Your task to perform on an android device: check google app version Image 0: 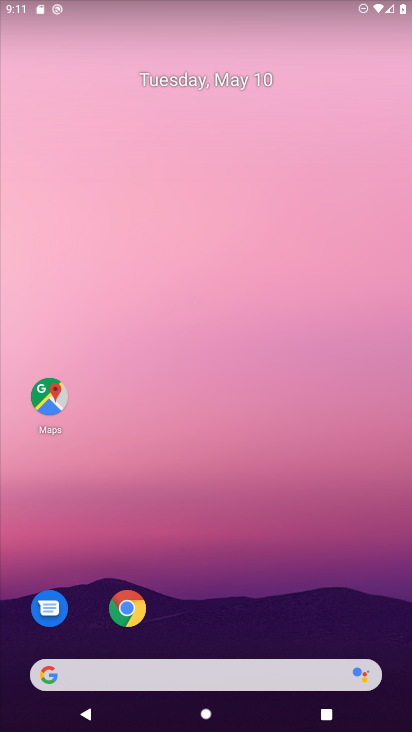
Step 0: drag from (372, 635) to (301, 18)
Your task to perform on an android device: check google app version Image 1: 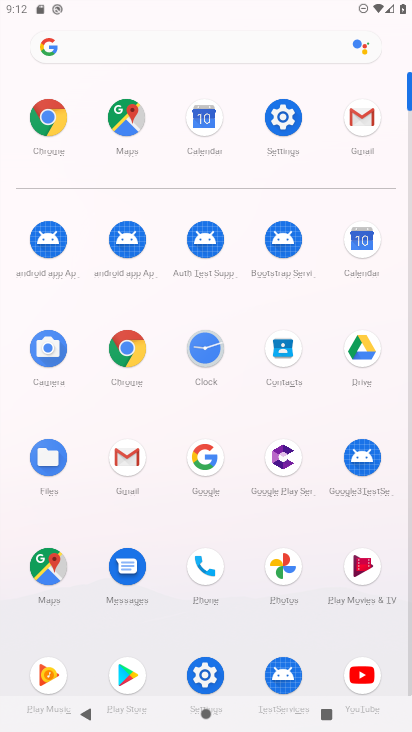
Step 1: click (218, 456)
Your task to perform on an android device: check google app version Image 2: 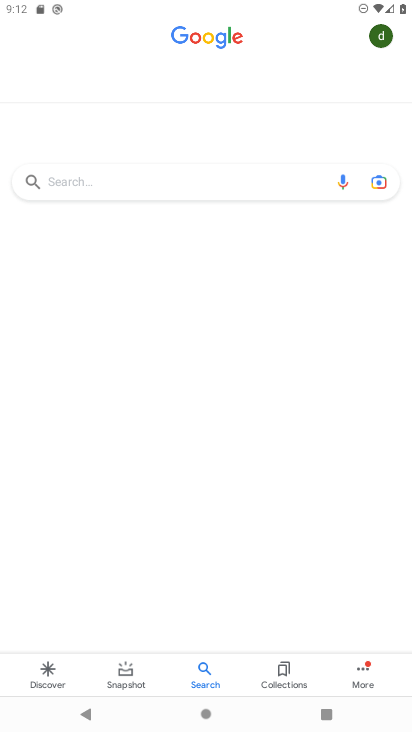
Step 2: press home button
Your task to perform on an android device: check google app version Image 3: 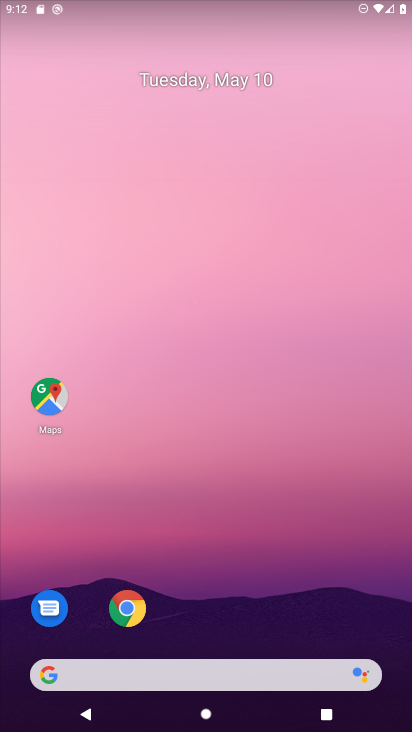
Step 3: drag from (289, 606) to (267, 62)
Your task to perform on an android device: check google app version Image 4: 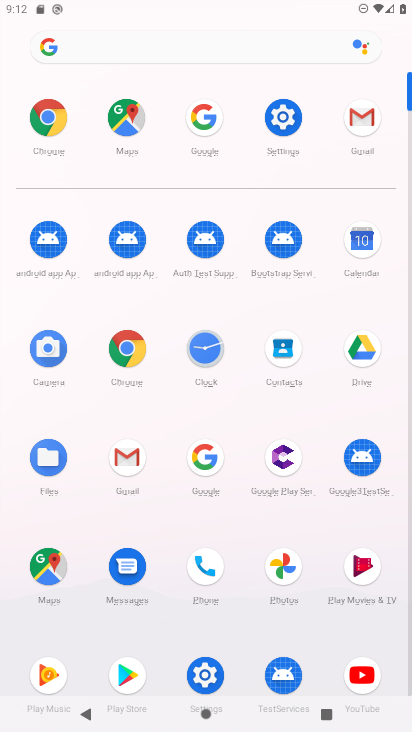
Step 4: click (218, 449)
Your task to perform on an android device: check google app version Image 5: 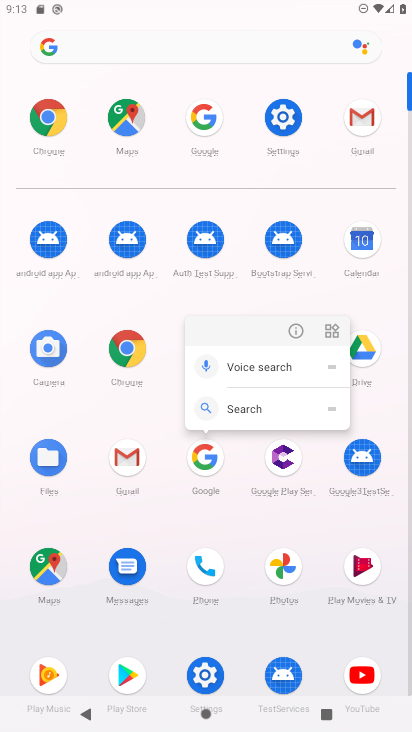
Step 5: click (289, 325)
Your task to perform on an android device: check google app version Image 6: 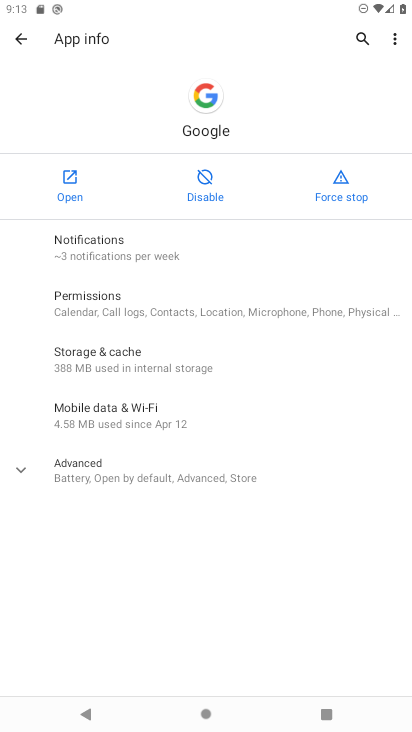
Step 6: click (76, 480)
Your task to perform on an android device: check google app version Image 7: 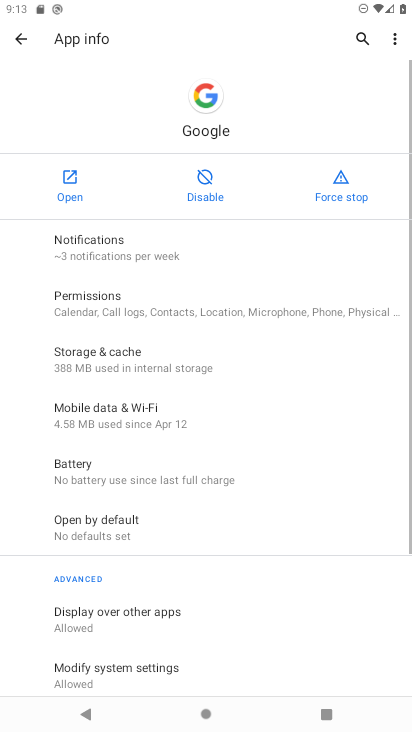
Step 7: task complete